Your task to perform on an android device: check the backup settings in the google photos Image 0: 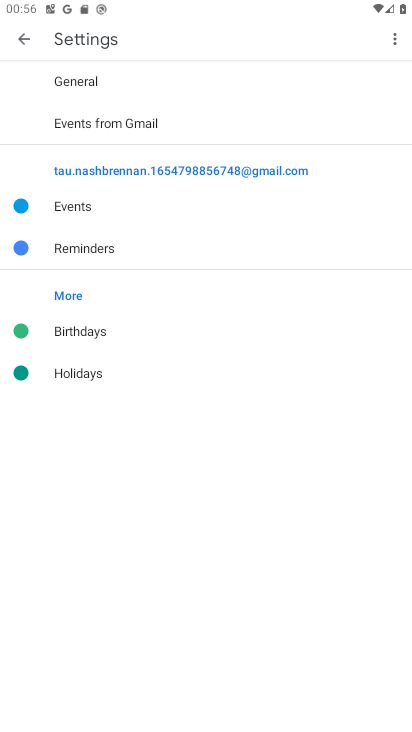
Step 0: press home button
Your task to perform on an android device: check the backup settings in the google photos Image 1: 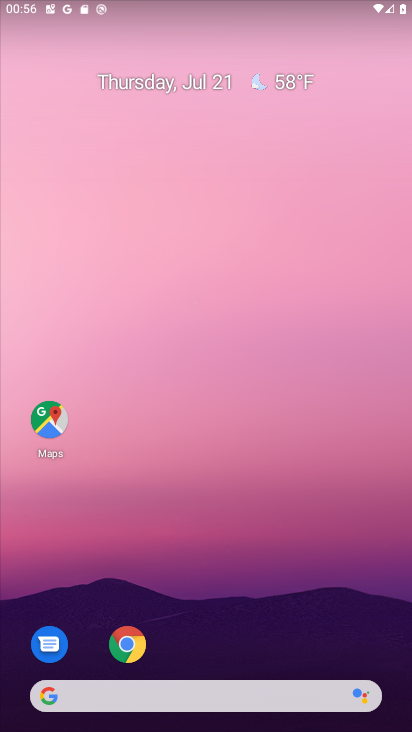
Step 1: drag from (213, 701) to (198, 152)
Your task to perform on an android device: check the backup settings in the google photos Image 2: 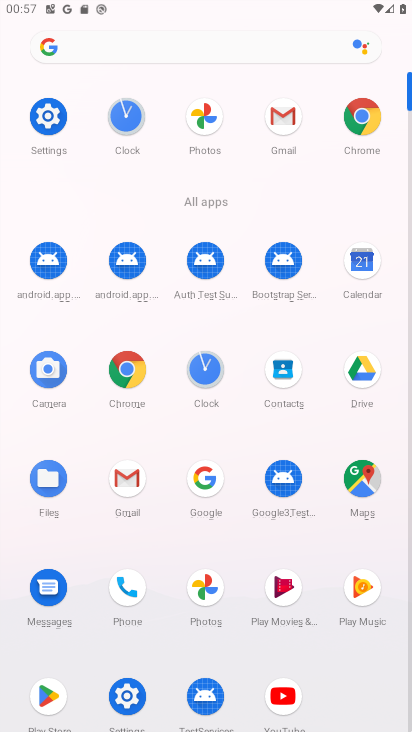
Step 2: click (212, 112)
Your task to perform on an android device: check the backup settings in the google photos Image 3: 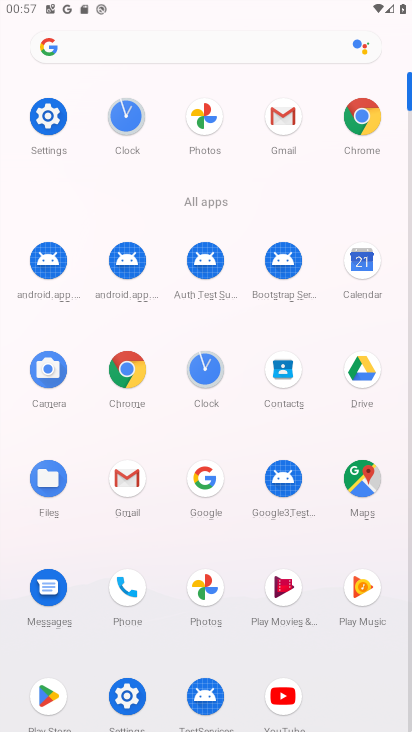
Step 3: click (212, 112)
Your task to perform on an android device: check the backup settings in the google photos Image 4: 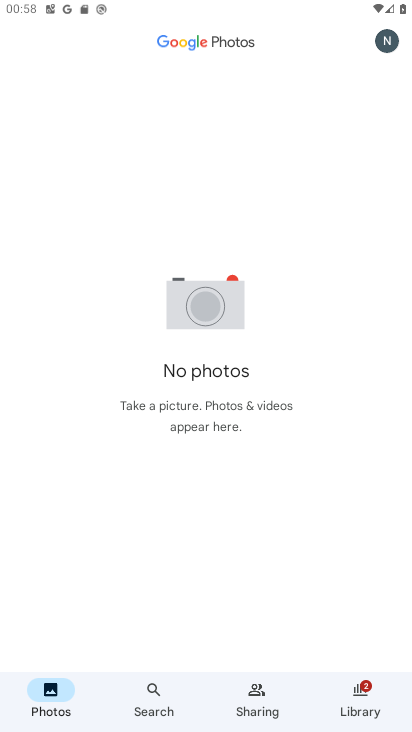
Step 4: click (375, 39)
Your task to perform on an android device: check the backup settings in the google photos Image 5: 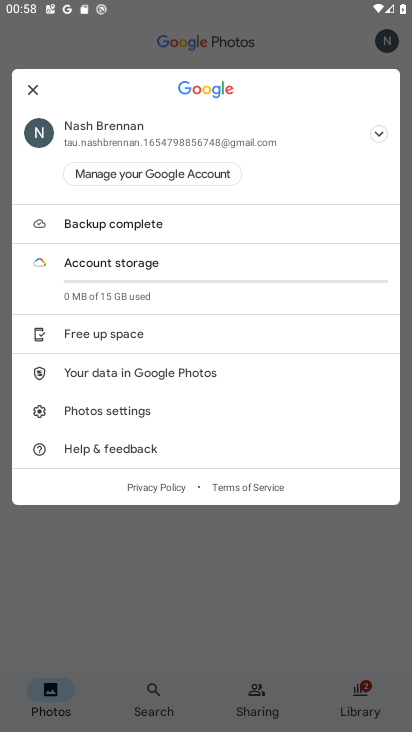
Step 5: click (140, 410)
Your task to perform on an android device: check the backup settings in the google photos Image 6: 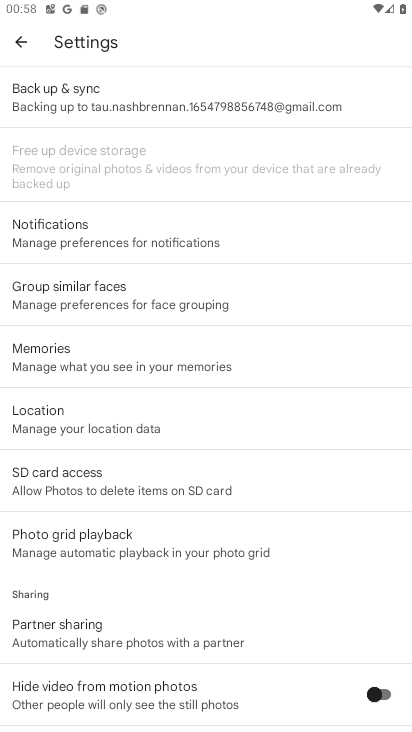
Step 6: click (205, 107)
Your task to perform on an android device: check the backup settings in the google photos Image 7: 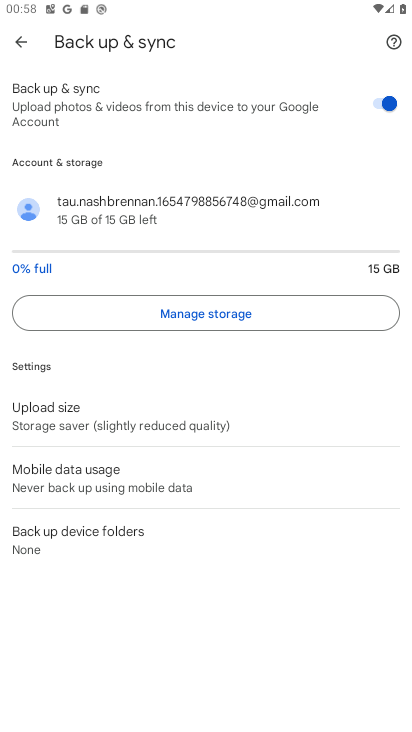
Step 7: task complete